Your task to perform on an android device: Open Wikipedia Image 0: 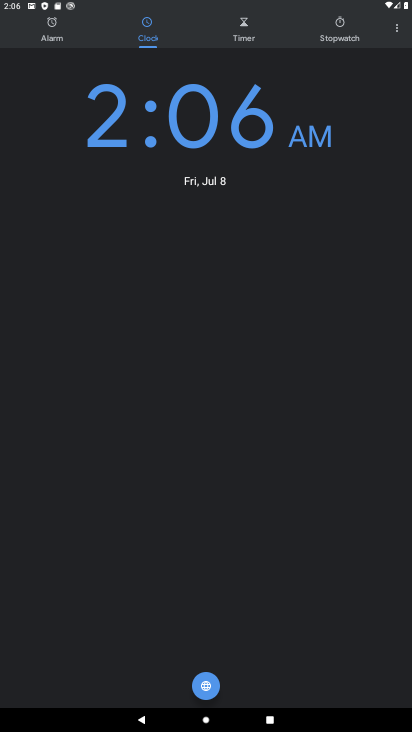
Step 0: press home button
Your task to perform on an android device: Open Wikipedia Image 1: 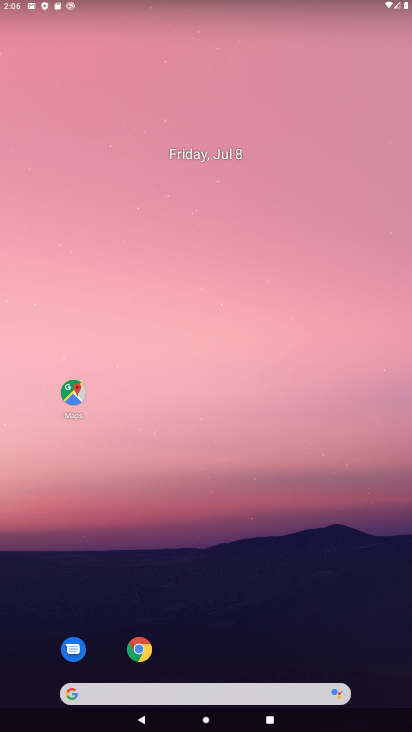
Step 1: drag from (341, 584) to (314, 111)
Your task to perform on an android device: Open Wikipedia Image 2: 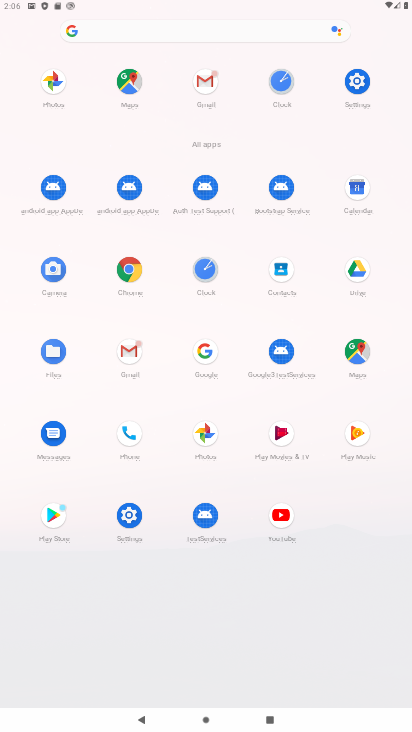
Step 2: click (129, 272)
Your task to perform on an android device: Open Wikipedia Image 3: 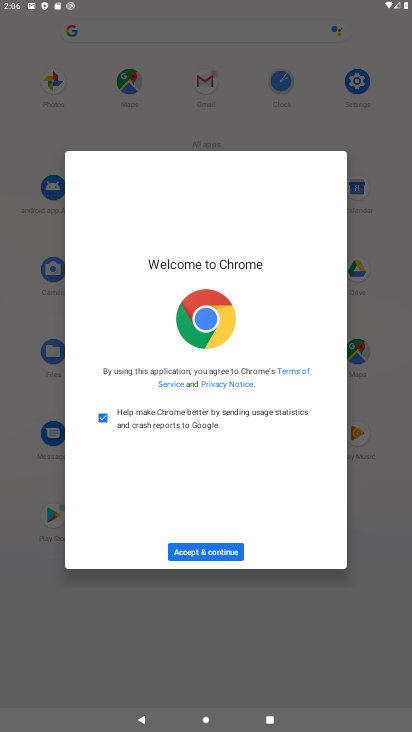
Step 3: click (224, 551)
Your task to perform on an android device: Open Wikipedia Image 4: 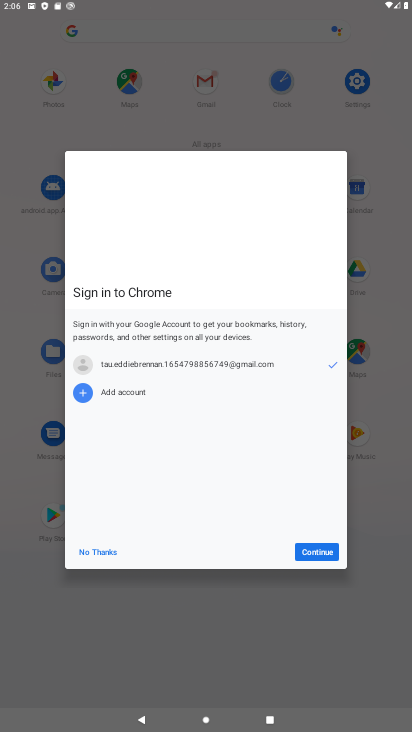
Step 4: click (303, 546)
Your task to perform on an android device: Open Wikipedia Image 5: 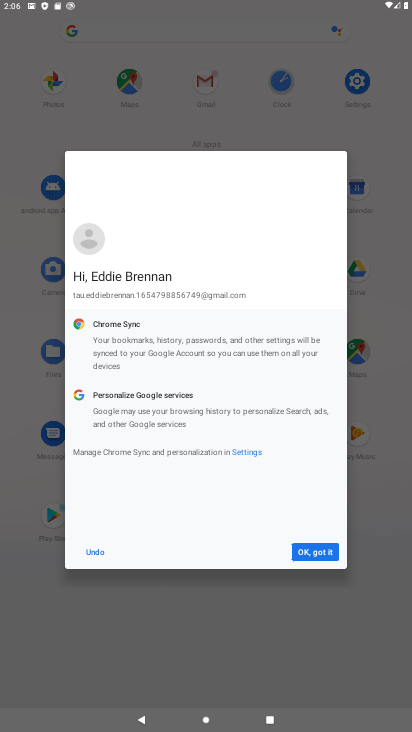
Step 5: click (321, 553)
Your task to perform on an android device: Open Wikipedia Image 6: 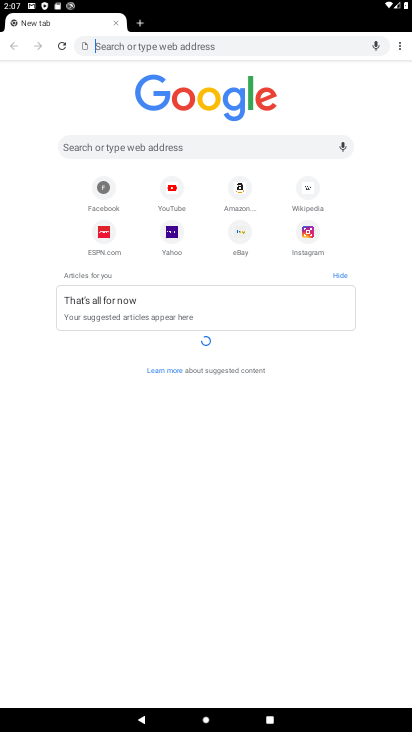
Step 6: click (305, 193)
Your task to perform on an android device: Open Wikipedia Image 7: 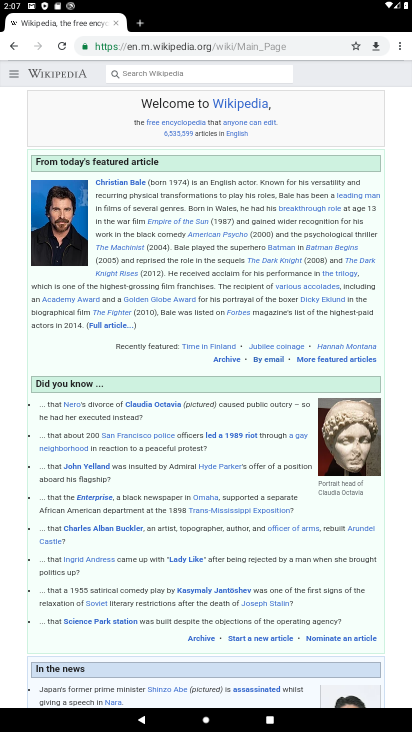
Step 7: task complete